Your task to perform on an android device: show emergency info Image 0: 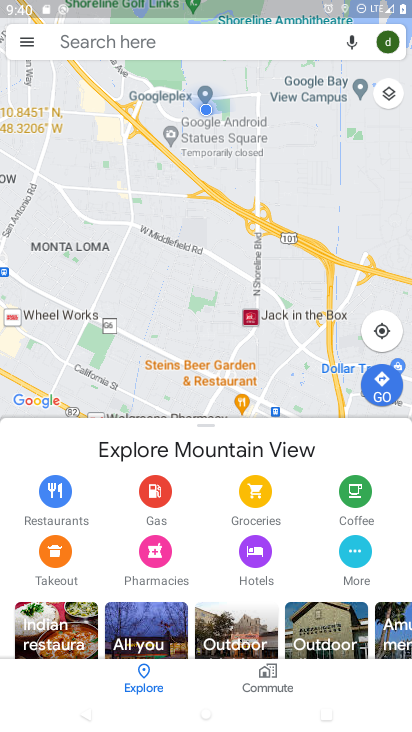
Step 0: press home button
Your task to perform on an android device: show emergency info Image 1: 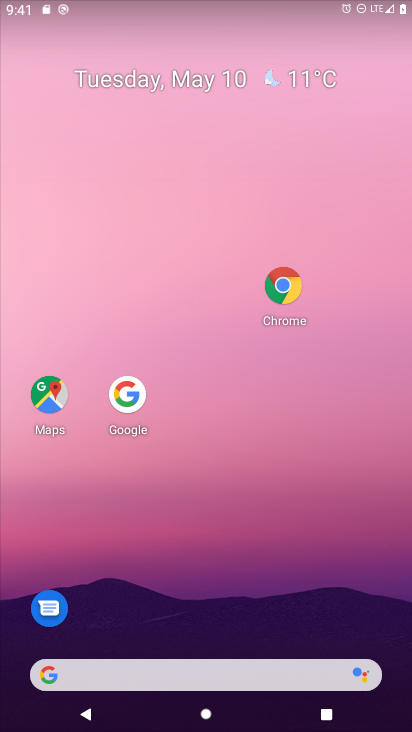
Step 1: drag from (98, 676) to (269, 70)
Your task to perform on an android device: show emergency info Image 2: 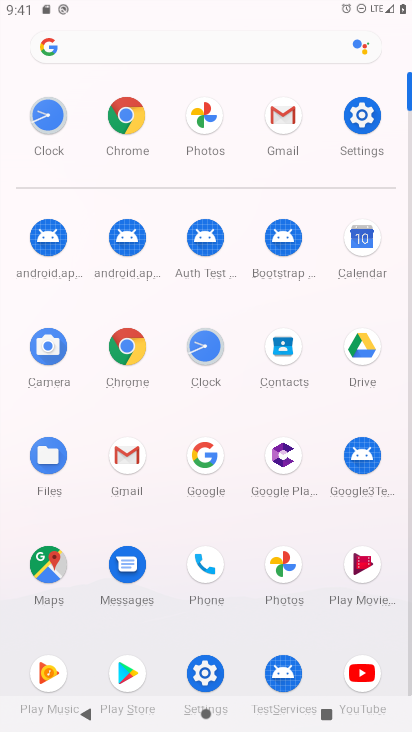
Step 2: click (368, 114)
Your task to perform on an android device: show emergency info Image 3: 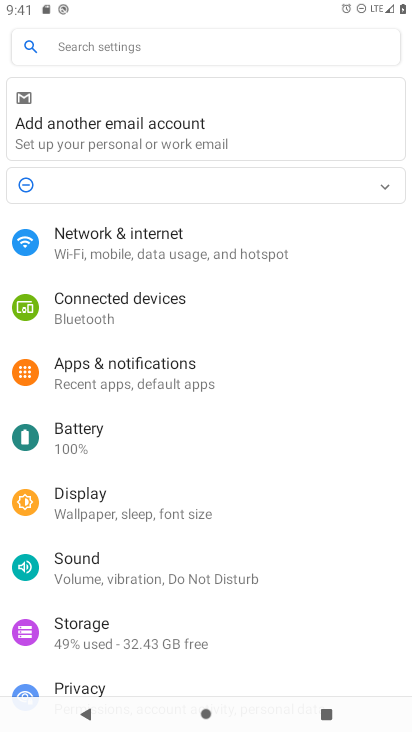
Step 3: drag from (197, 664) to (334, 12)
Your task to perform on an android device: show emergency info Image 4: 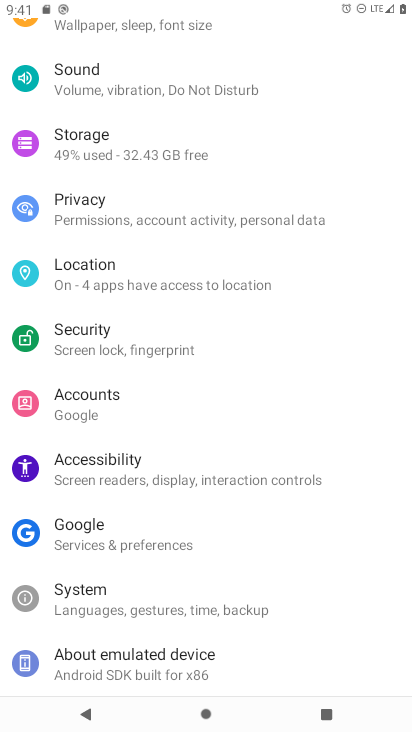
Step 4: click (146, 660)
Your task to perform on an android device: show emergency info Image 5: 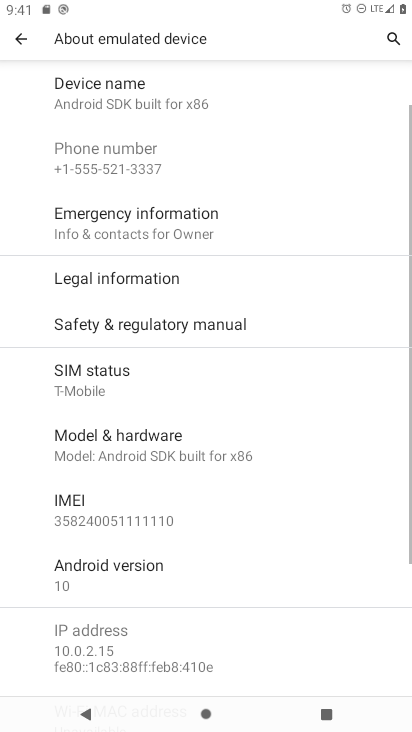
Step 5: click (180, 211)
Your task to perform on an android device: show emergency info Image 6: 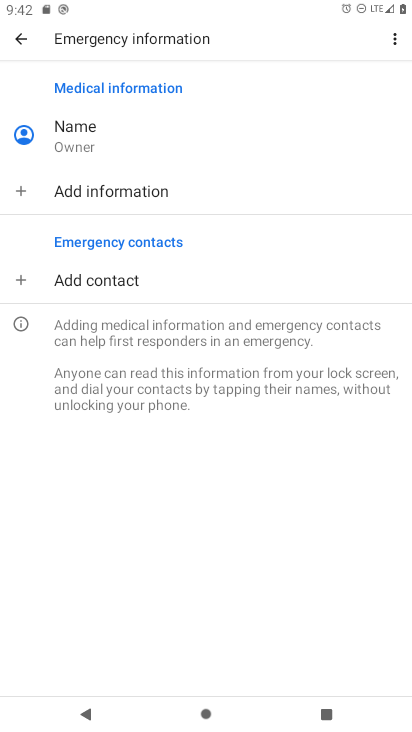
Step 6: task complete